Your task to perform on an android device: Open wifi settings Image 0: 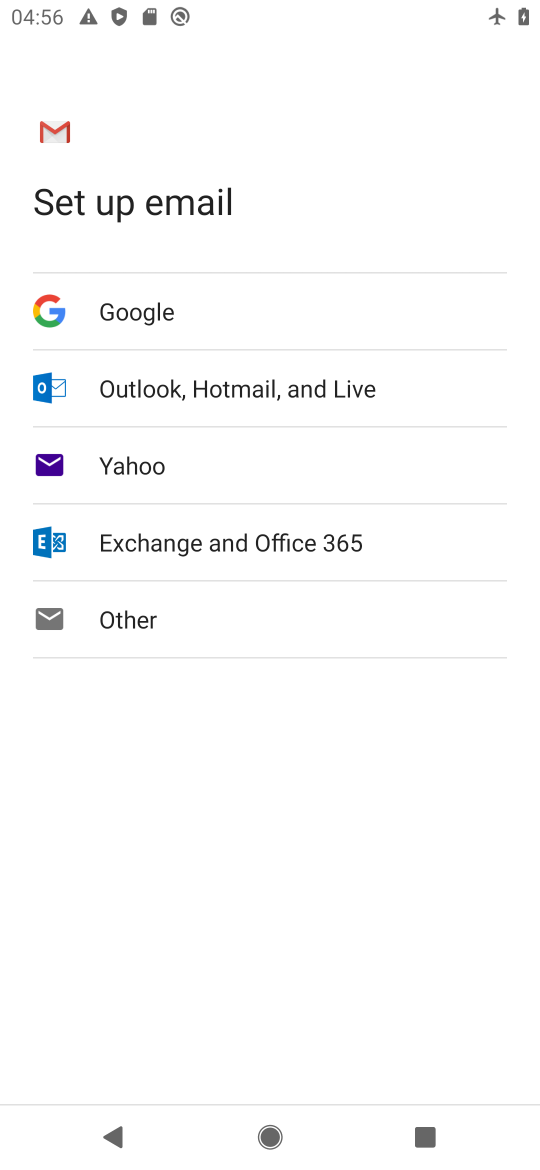
Step 0: press home button
Your task to perform on an android device: Open wifi settings Image 1: 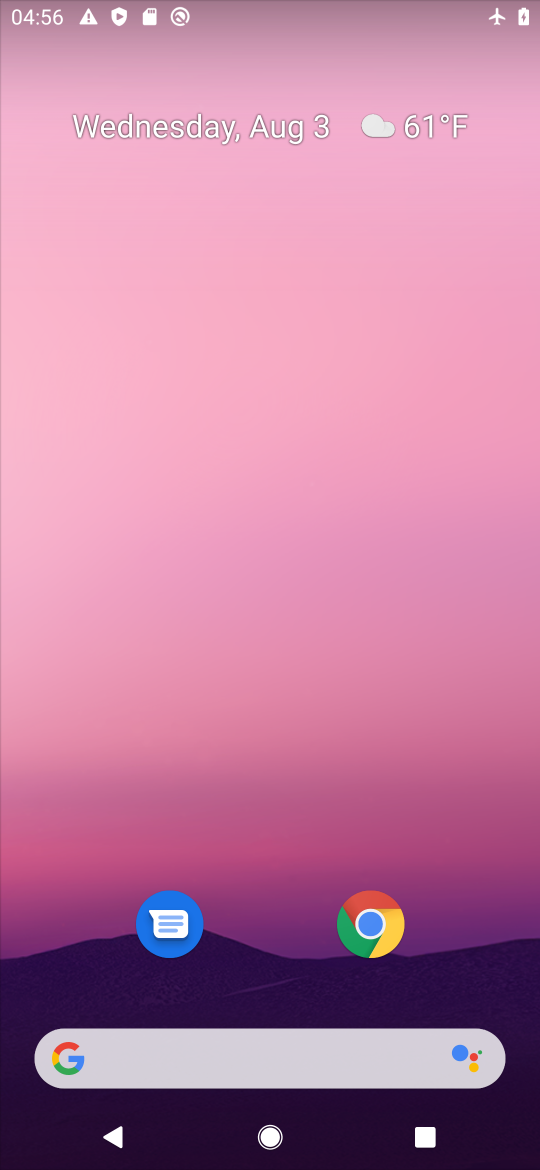
Step 1: drag from (216, 968) to (143, 396)
Your task to perform on an android device: Open wifi settings Image 2: 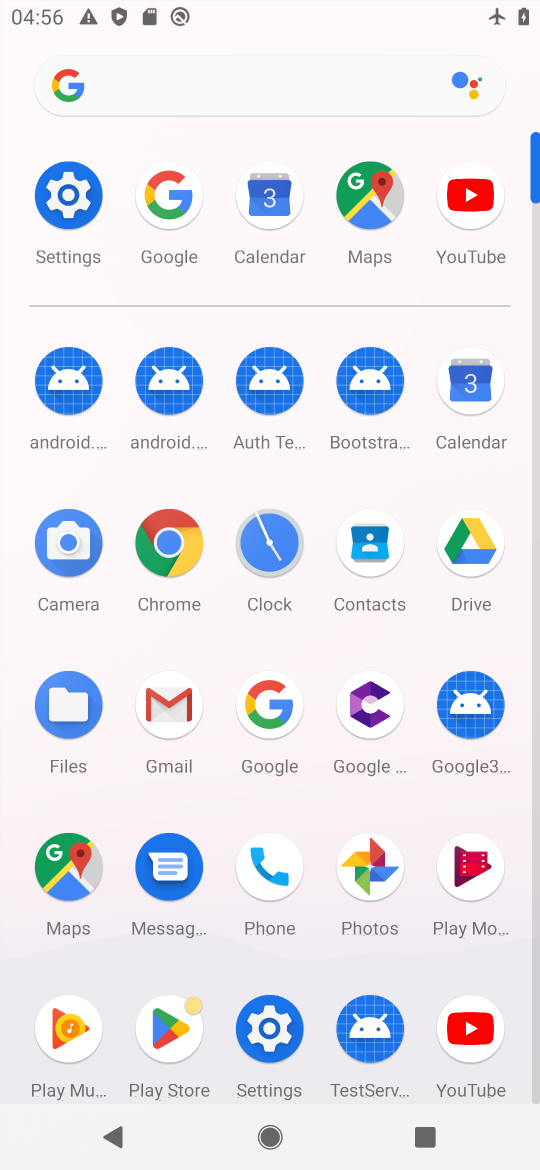
Step 2: click (70, 198)
Your task to perform on an android device: Open wifi settings Image 3: 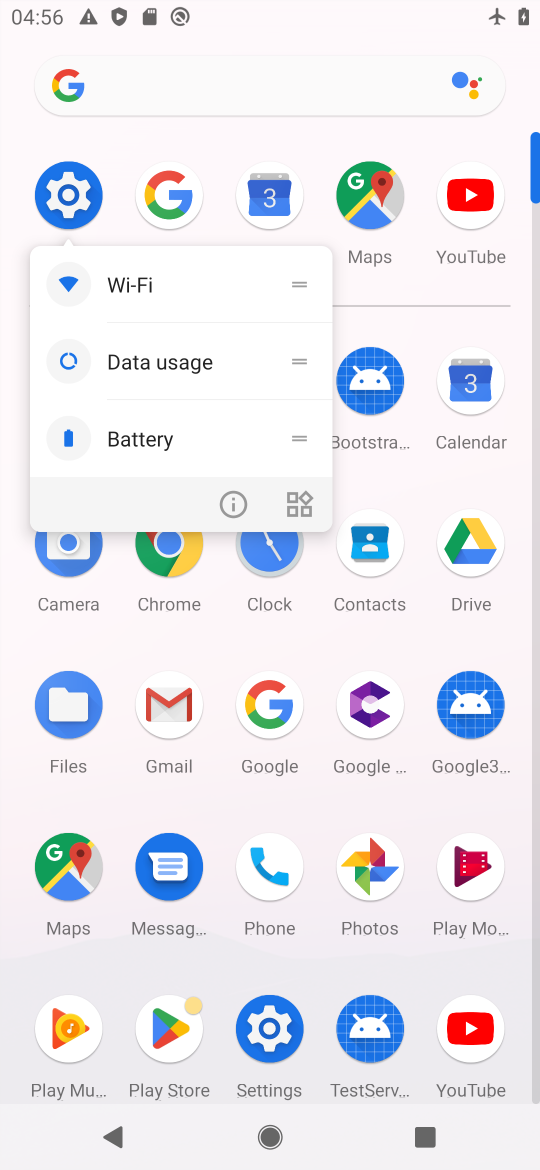
Step 3: click (72, 199)
Your task to perform on an android device: Open wifi settings Image 4: 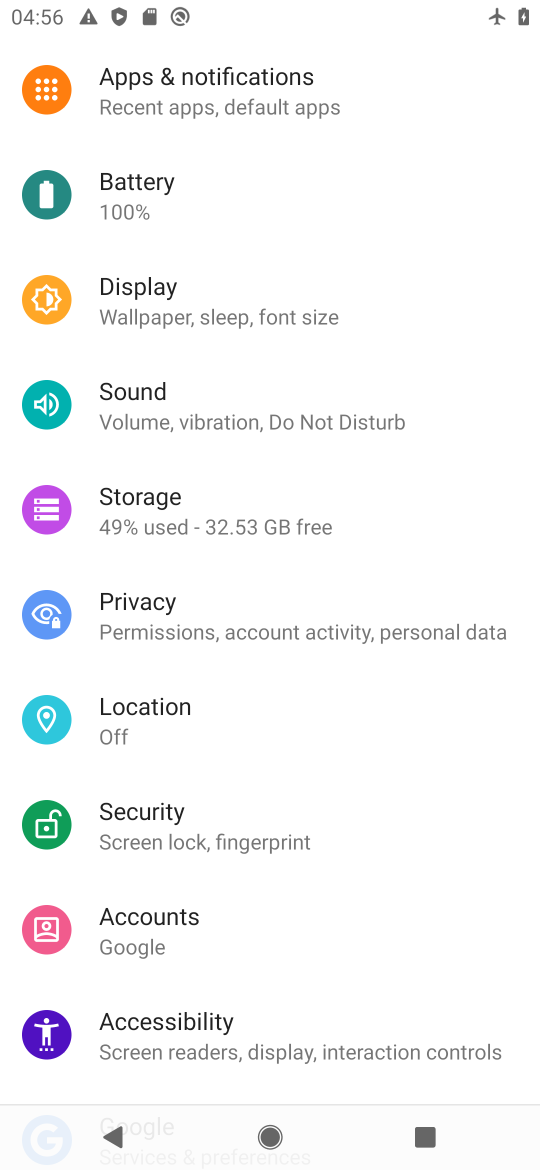
Step 4: drag from (171, 216) to (222, 738)
Your task to perform on an android device: Open wifi settings Image 5: 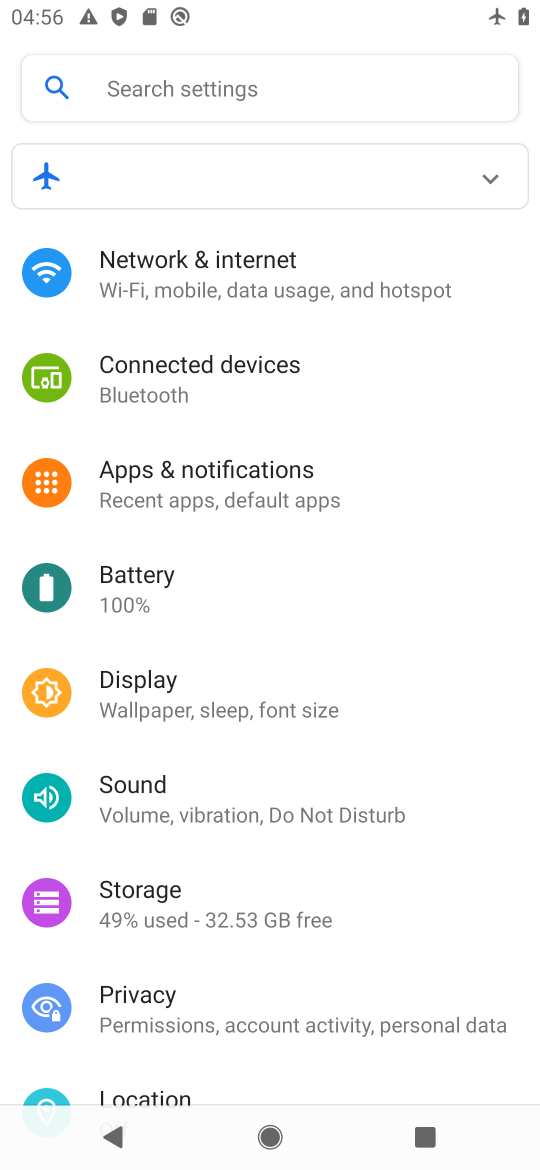
Step 5: click (231, 272)
Your task to perform on an android device: Open wifi settings Image 6: 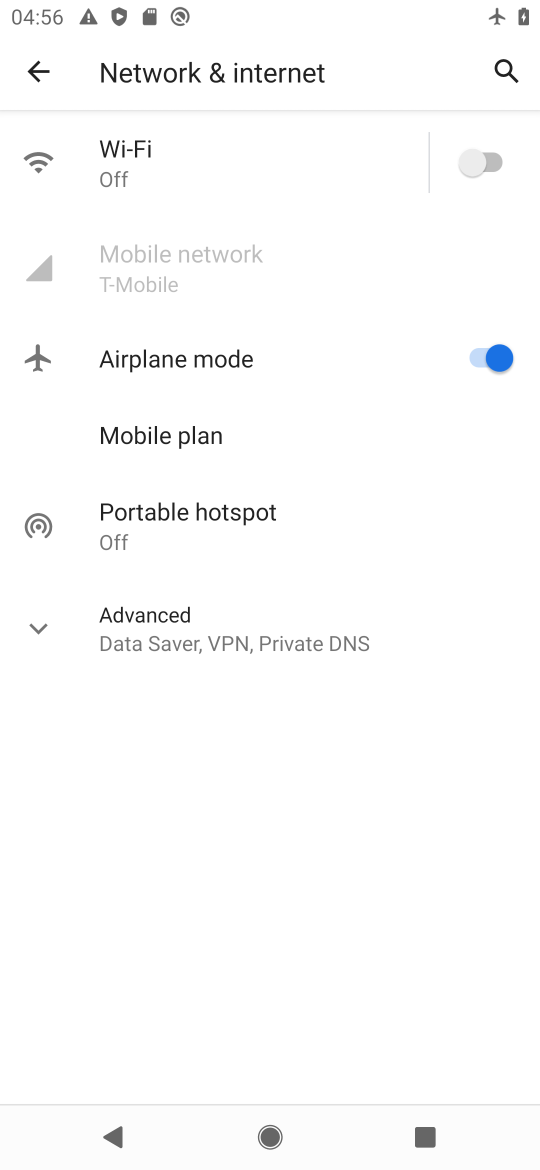
Step 6: click (293, 181)
Your task to perform on an android device: Open wifi settings Image 7: 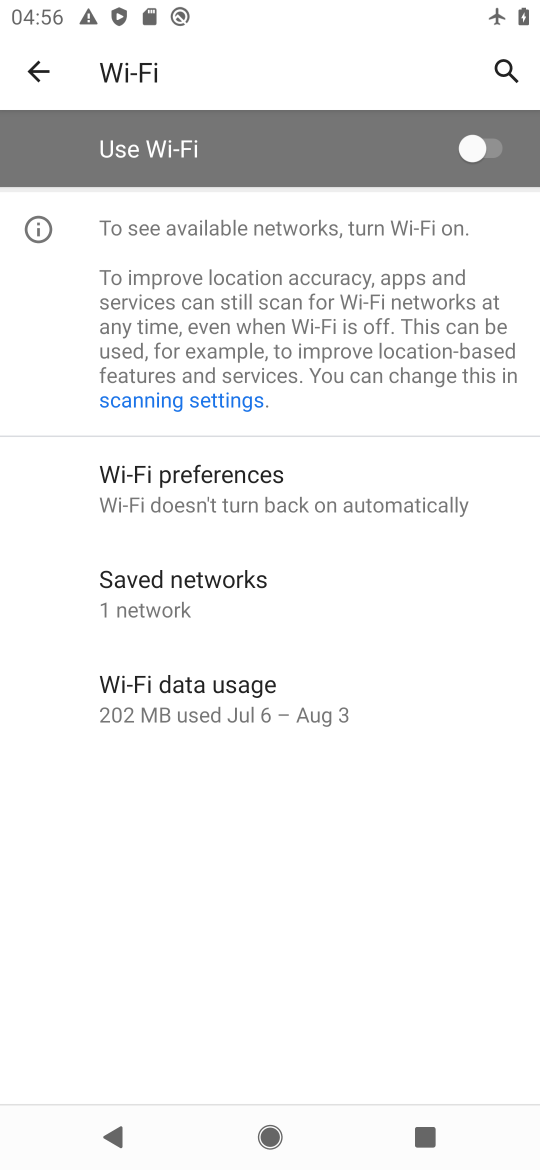
Step 7: task complete